Your task to perform on an android device: turn on improve location accuracy Image 0: 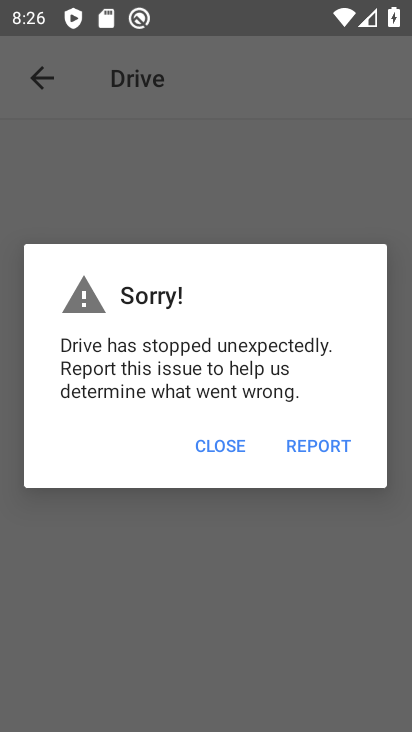
Step 0: press home button
Your task to perform on an android device: turn on improve location accuracy Image 1: 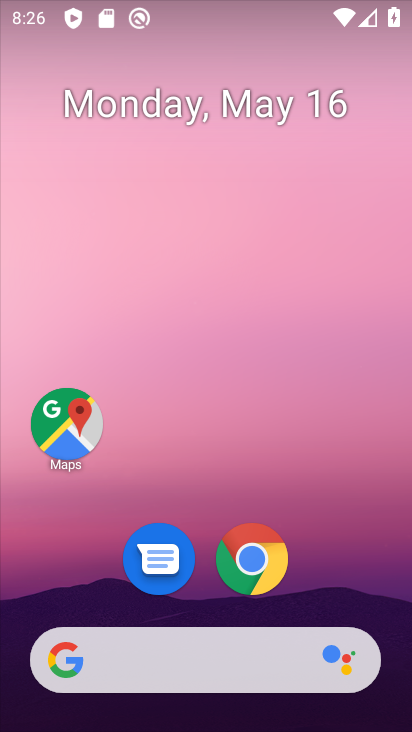
Step 1: drag from (319, 580) to (363, 11)
Your task to perform on an android device: turn on improve location accuracy Image 2: 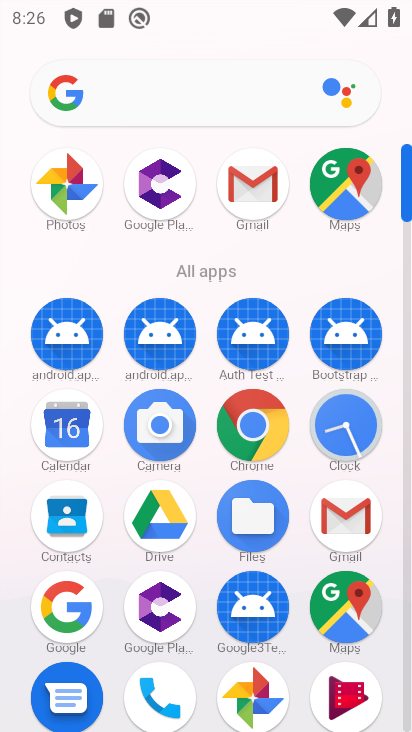
Step 2: drag from (292, 567) to (319, 412)
Your task to perform on an android device: turn on improve location accuracy Image 3: 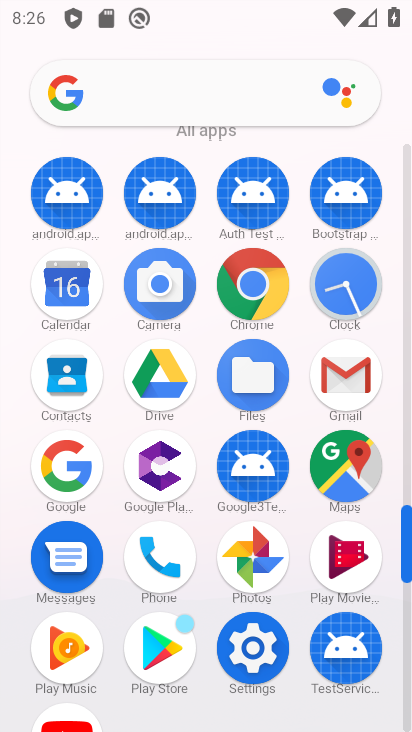
Step 3: click (247, 656)
Your task to perform on an android device: turn on improve location accuracy Image 4: 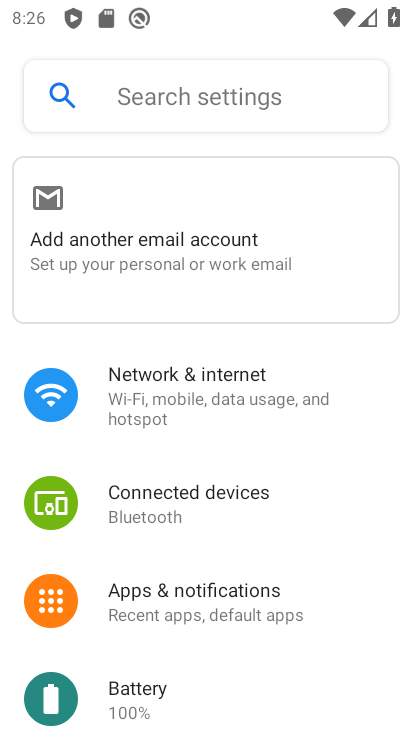
Step 4: drag from (178, 618) to (199, 487)
Your task to perform on an android device: turn on improve location accuracy Image 5: 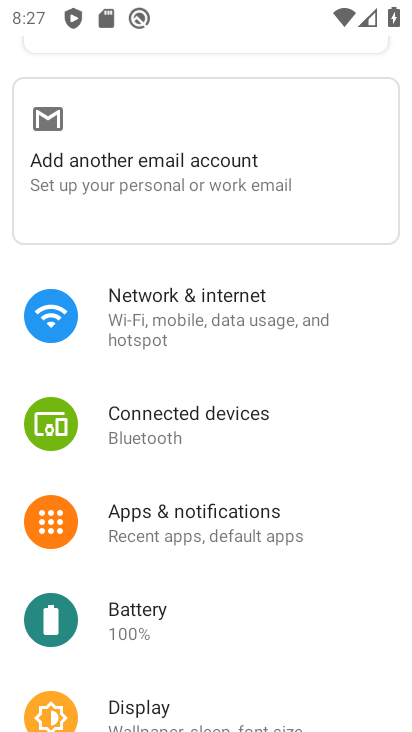
Step 5: drag from (213, 620) to (210, 412)
Your task to perform on an android device: turn on improve location accuracy Image 6: 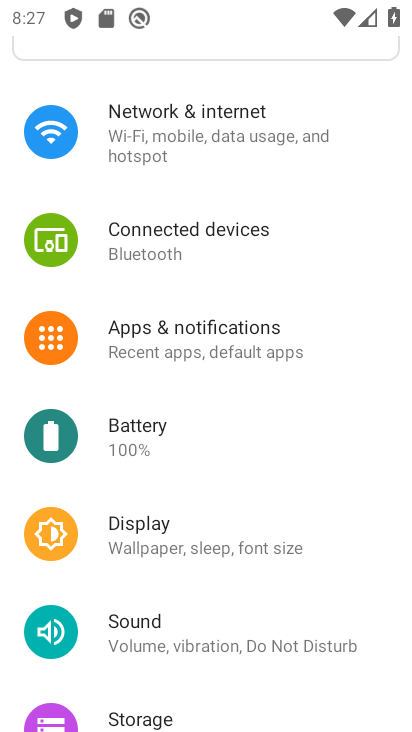
Step 6: drag from (202, 594) to (217, 476)
Your task to perform on an android device: turn on improve location accuracy Image 7: 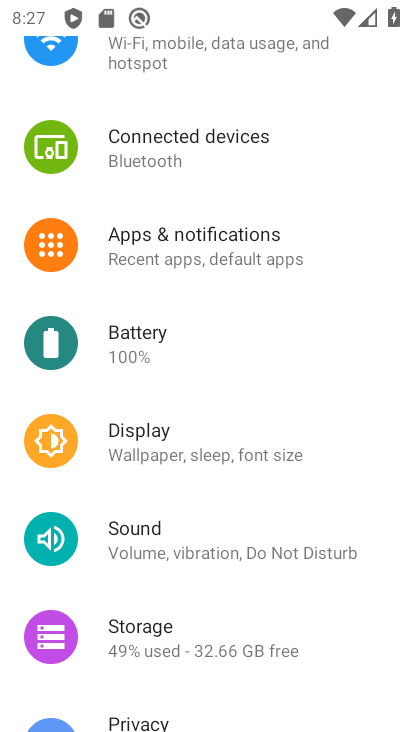
Step 7: drag from (175, 610) to (207, 458)
Your task to perform on an android device: turn on improve location accuracy Image 8: 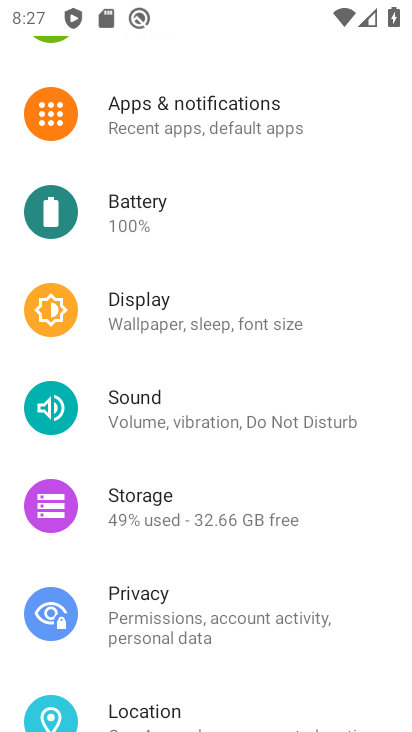
Step 8: drag from (191, 542) to (200, 475)
Your task to perform on an android device: turn on improve location accuracy Image 9: 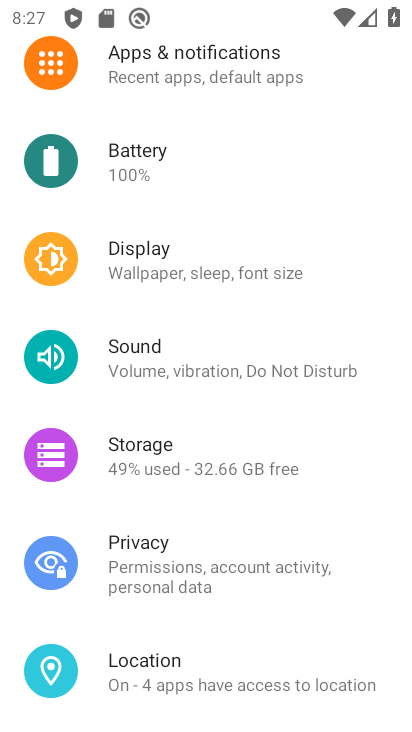
Step 9: click (151, 656)
Your task to perform on an android device: turn on improve location accuracy Image 10: 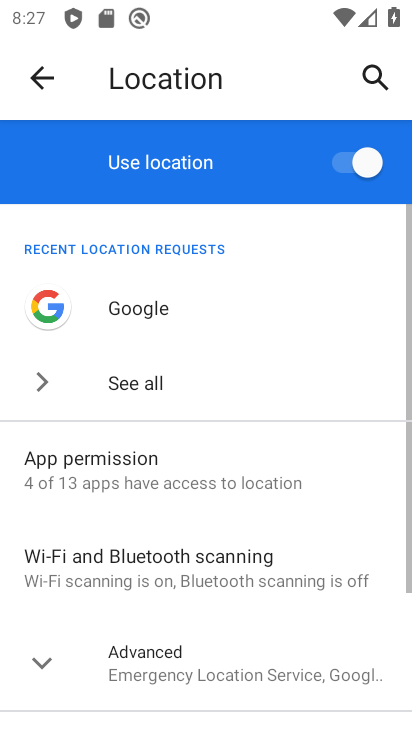
Step 10: drag from (148, 647) to (181, 521)
Your task to perform on an android device: turn on improve location accuracy Image 11: 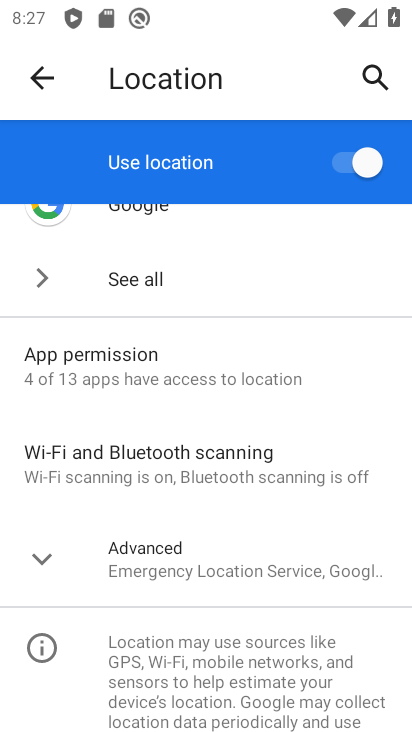
Step 11: click (176, 577)
Your task to perform on an android device: turn on improve location accuracy Image 12: 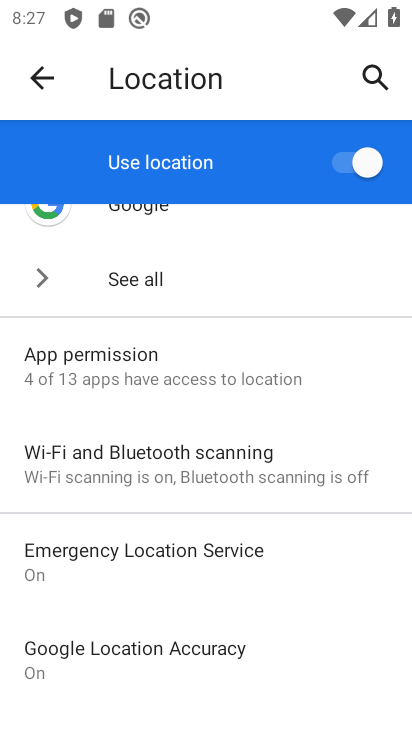
Step 12: click (151, 661)
Your task to perform on an android device: turn on improve location accuracy Image 13: 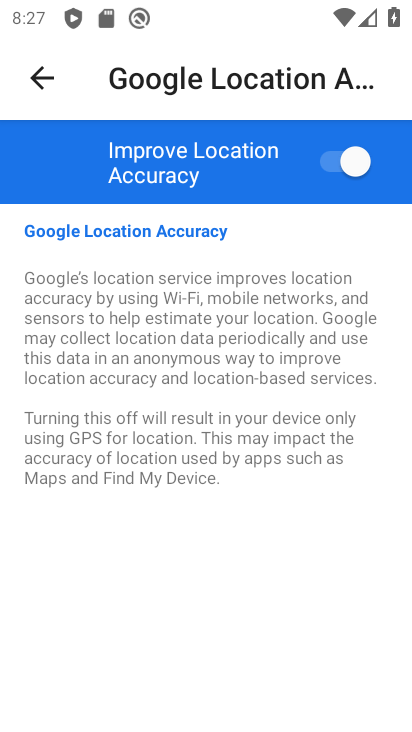
Step 13: task complete